Your task to perform on an android device: turn on notifications settings in the gmail app Image 0: 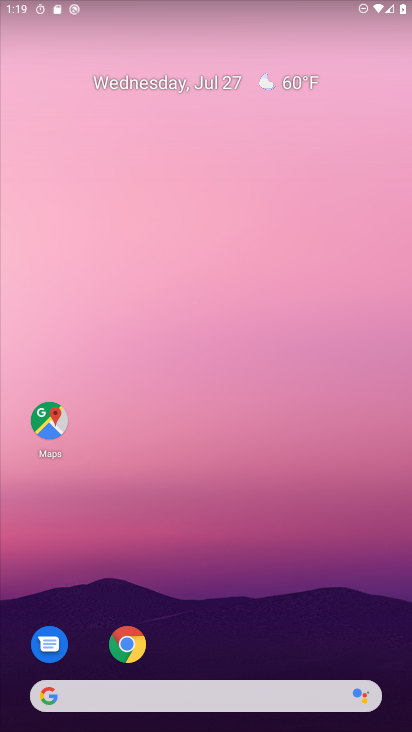
Step 0: drag from (193, 660) to (151, 8)
Your task to perform on an android device: turn on notifications settings in the gmail app Image 1: 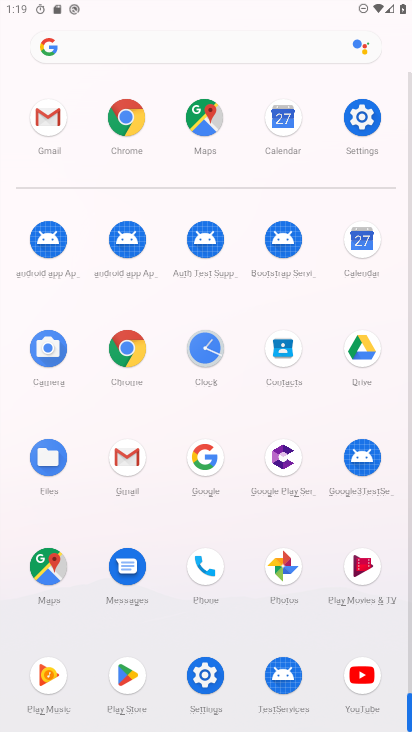
Step 1: click (112, 462)
Your task to perform on an android device: turn on notifications settings in the gmail app Image 2: 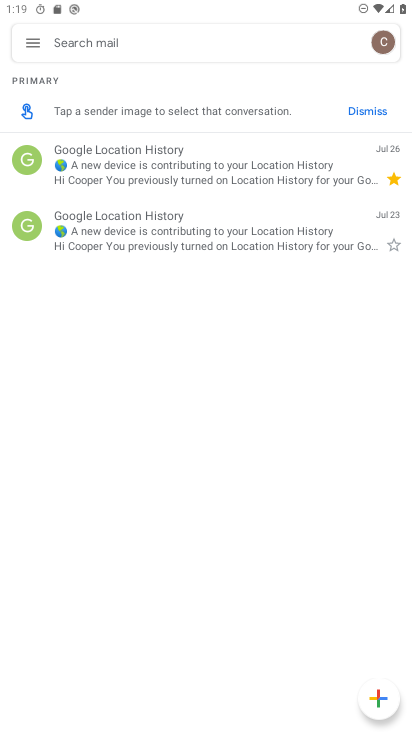
Step 2: click (39, 48)
Your task to perform on an android device: turn on notifications settings in the gmail app Image 3: 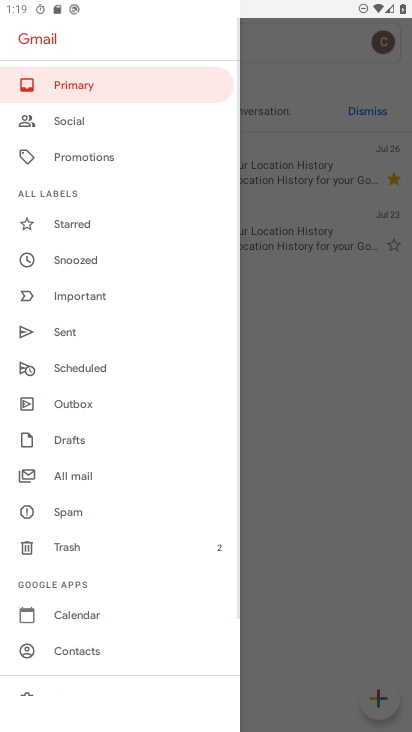
Step 3: drag from (108, 427) to (141, 219)
Your task to perform on an android device: turn on notifications settings in the gmail app Image 4: 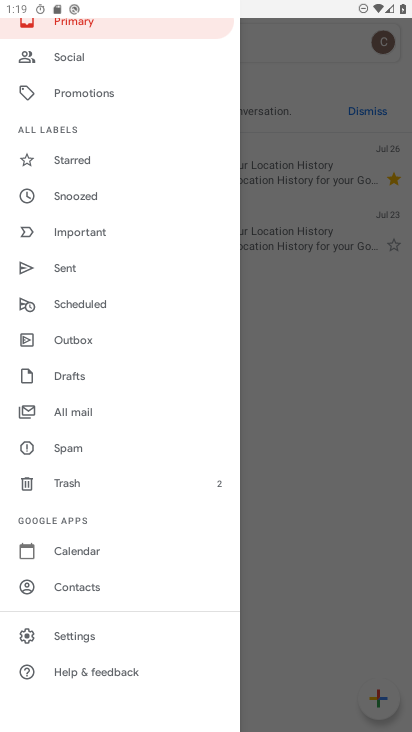
Step 4: click (91, 630)
Your task to perform on an android device: turn on notifications settings in the gmail app Image 5: 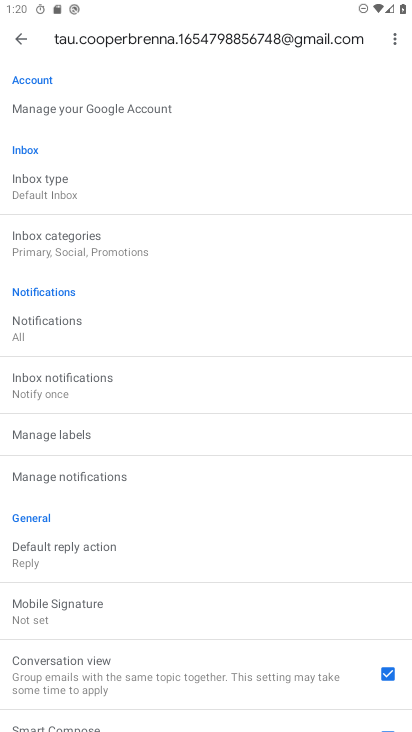
Step 5: click (110, 469)
Your task to perform on an android device: turn on notifications settings in the gmail app Image 6: 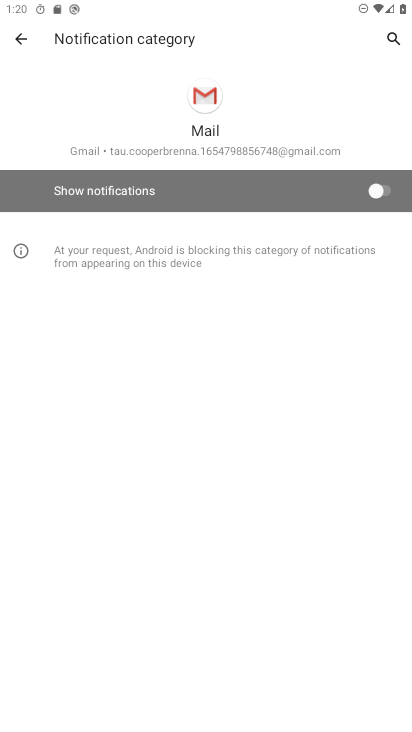
Step 6: click (291, 196)
Your task to perform on an android device: turn on notifications settings in the gmail app Image 7: 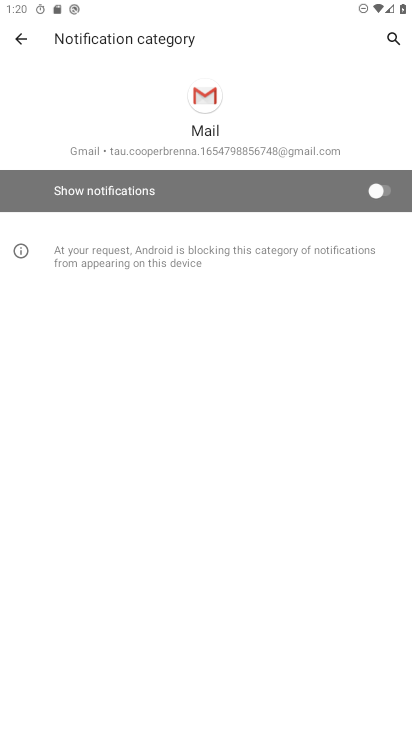
Step 7: task complete